Your task to perform on an android device: change notifications settings Image 0: 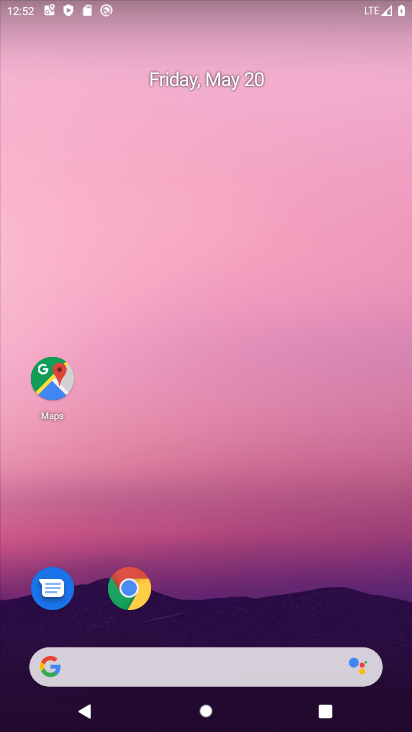
Step 0: drag from (390, 624) to (349, 121)
Your task to perform on an android device: change notifications settings Image 1: 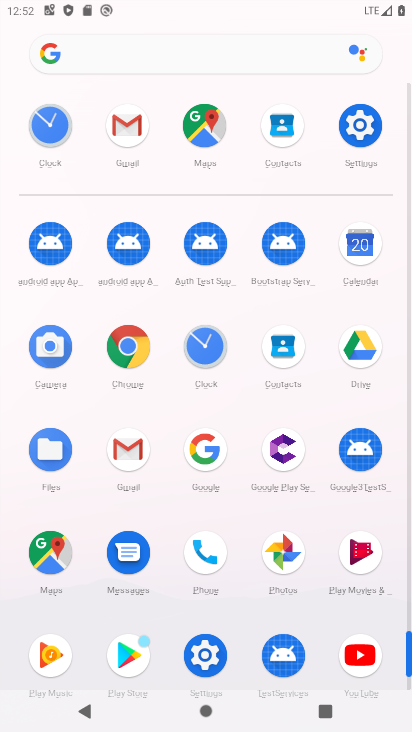
Step 1: click (410, 681)
Your task to perform on an android device: change notifications settings Image 2: 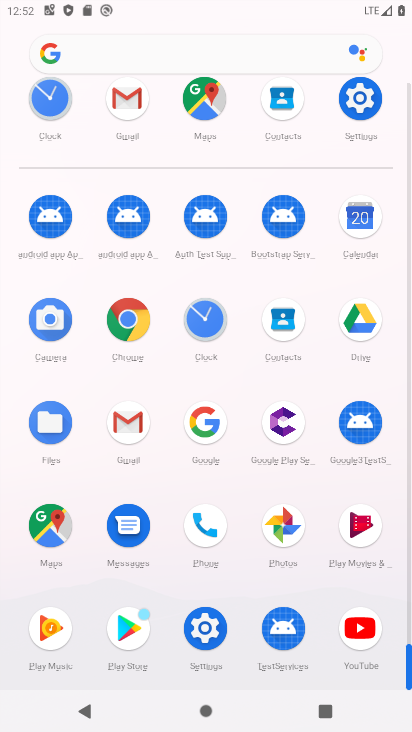
Step 2: click (209, 626)
Your task to perform on an android device: change notifications settings Image 3: 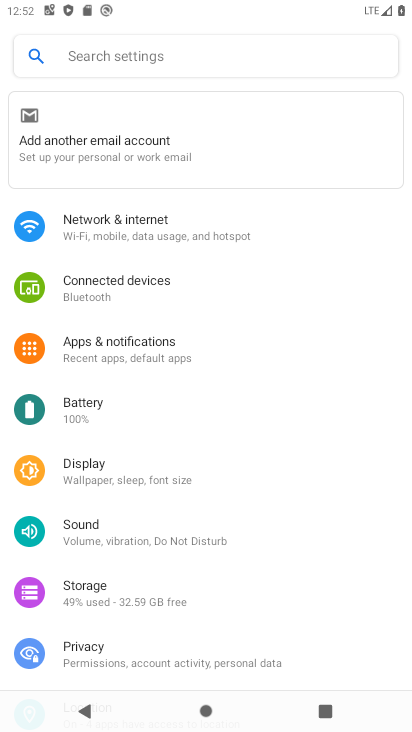
Step 3: click (97, 343)
Your task to perform on an android device: change notifications settings Image 4: 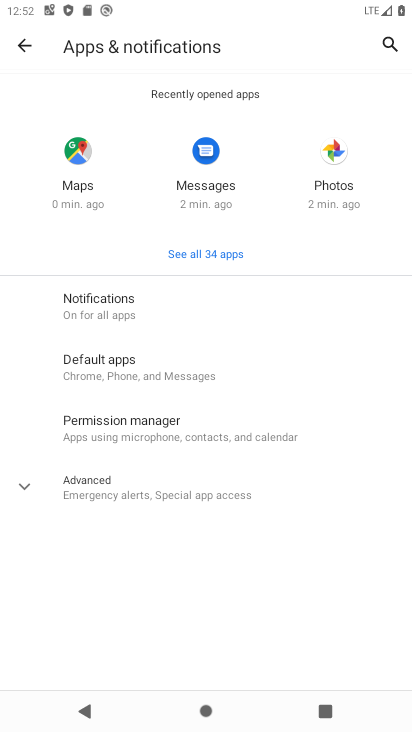
Step 4: click (25, 486)
Your task to perform on an android device: change notifications settings Image 5: 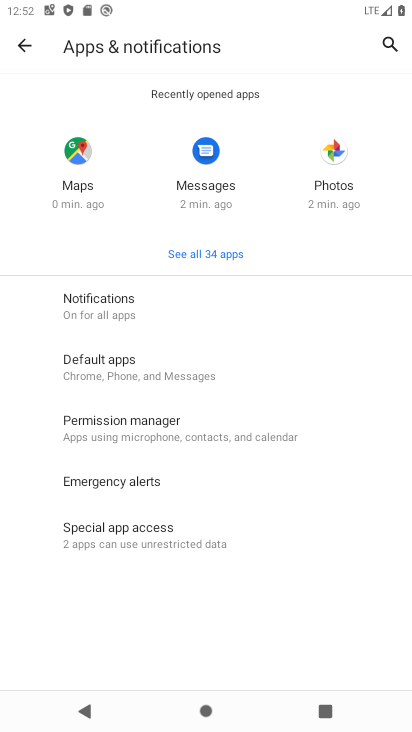
Step 5: click (105, 298)
Your task to perform on an android device: change notifications settings Image 6: 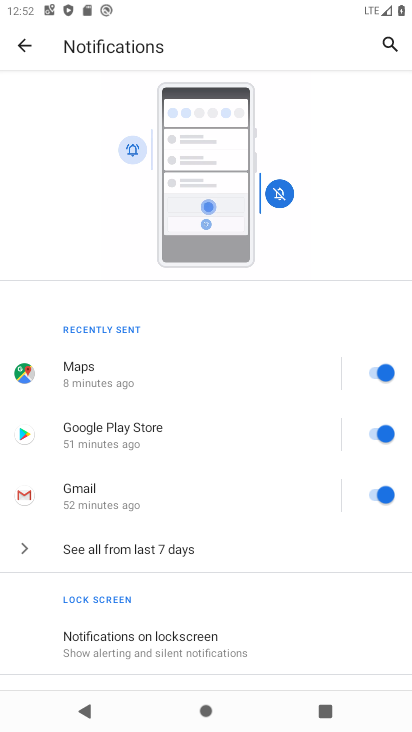
Step 6: drag from (329, 611) to (337, 136)
Your task to perform on an android device: change notifications settings Image 7: 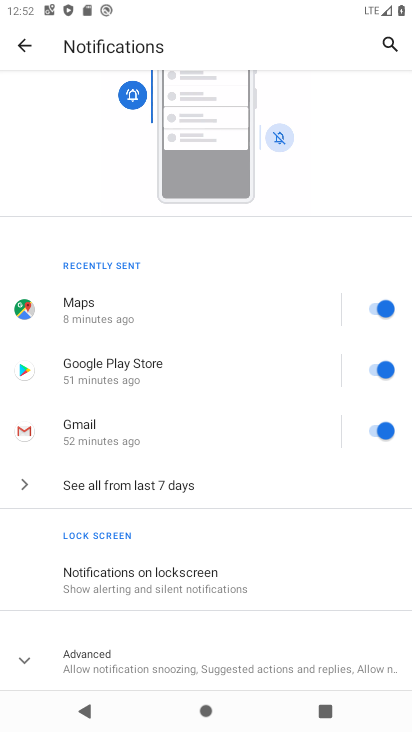
Step 7: click (20, 662)
Your task to perform on an android device: change notifications settings Image 8: 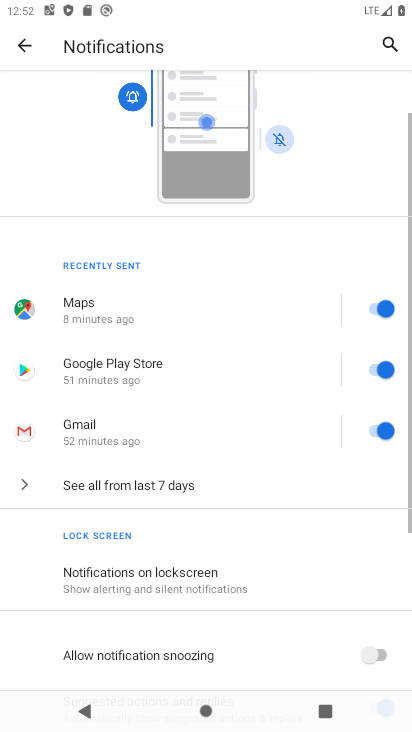
Step 8: task complete